Your task to perform on an android device: turn off smart reply in the gmail app Image 0: 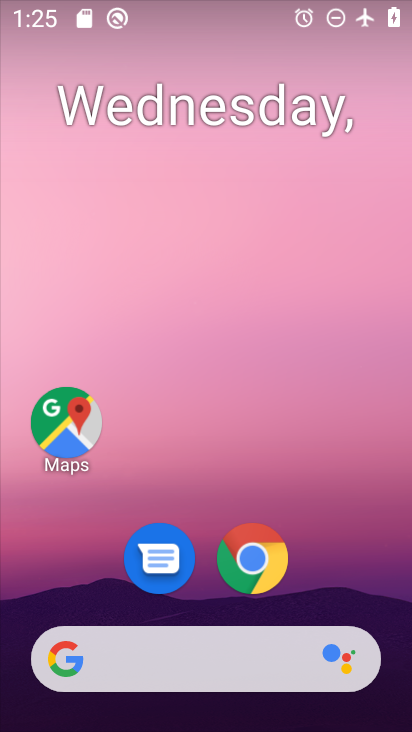
Step 0: drag from (398, 643) to (328, 37)
Your task to perform on an android device: turn off smart reply in the gmail app Image 1: 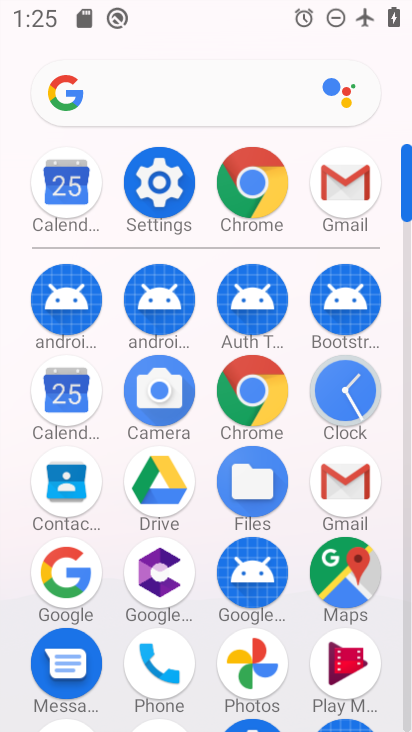
Step 1: click (349, 484)
Your task to perform on an android device: turn off smart reply in the gmail app Image 2: 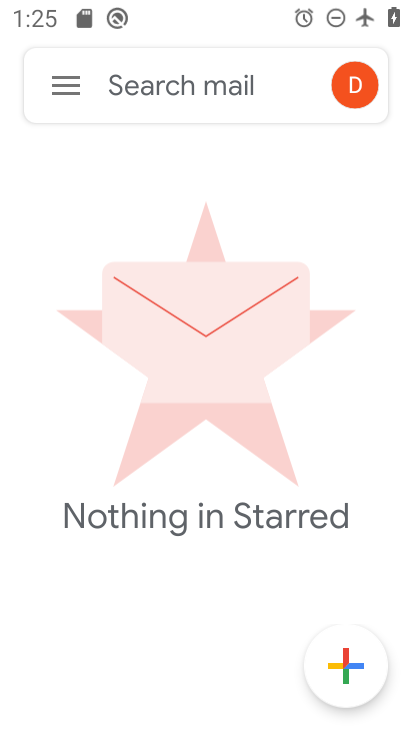
Step 2: click (71, 88)
Your task to perform on an android device: turn off smart reply in the gmail app Image 3: 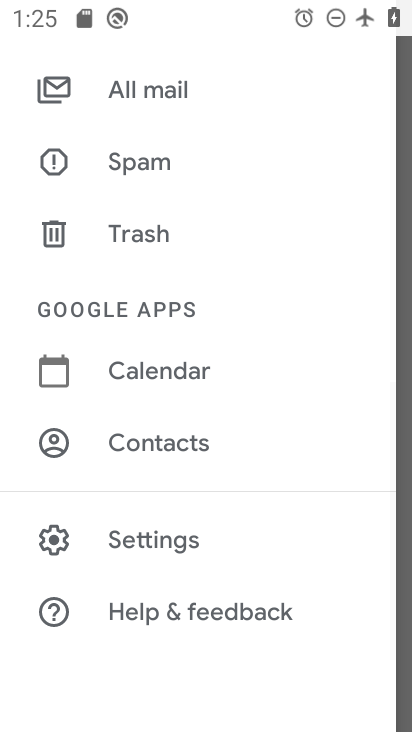
Step 3: click (195, 539)
Your task to perform on an android device: turn off smart reply in the gmail app Image 4: 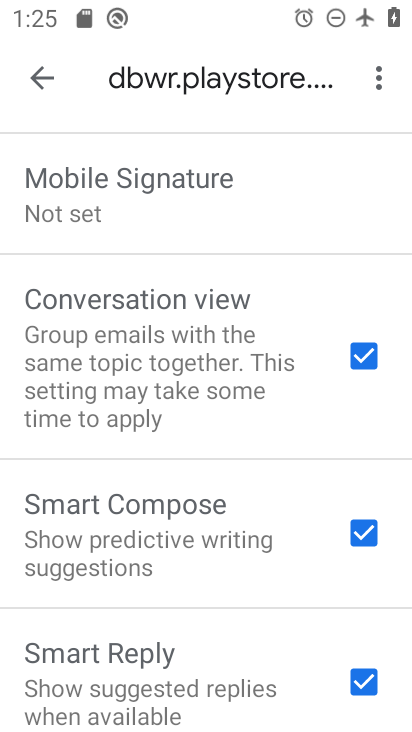
Step 4: click (319, 658)
Your task to perform on an android device: turn off smart reply in the gmail app Image 5: 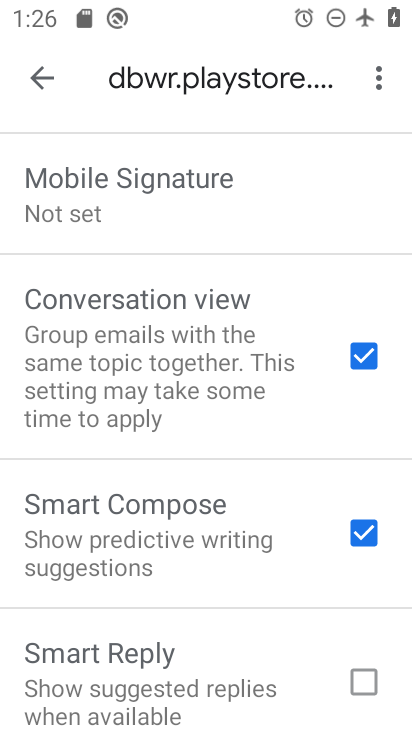
Step 5: task complete